Your task to perform on an android device: clear history in the chrome app Image 0: 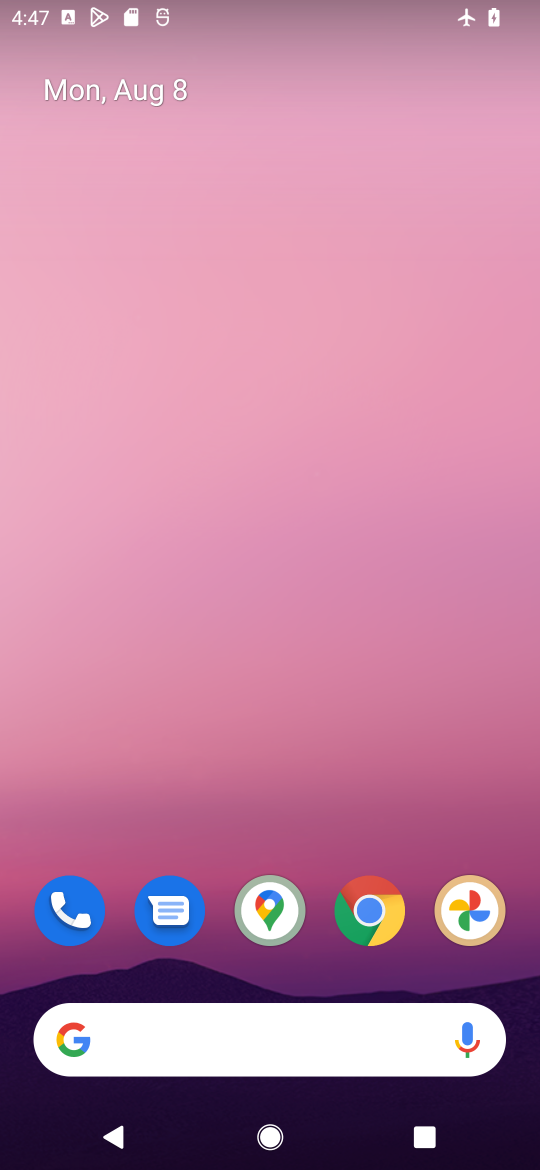
Step 0: click (372, 917)
Your task to perform on an android device: clear history in the chrome app Image 1: 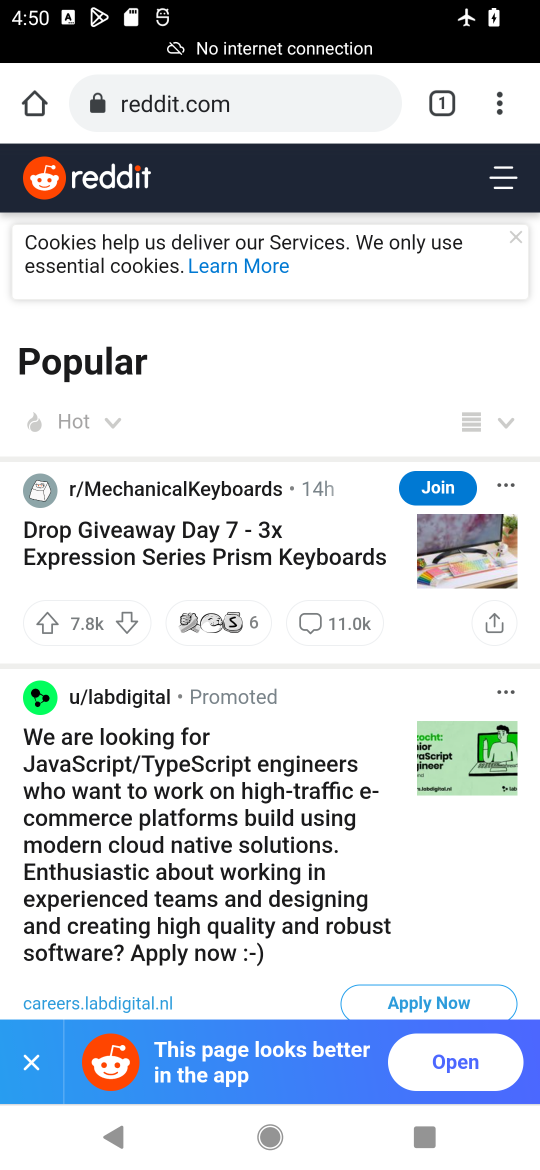
Step 1: click (499, 99)
Your task to perform on an android device: clear history in the chrome app Image 2: 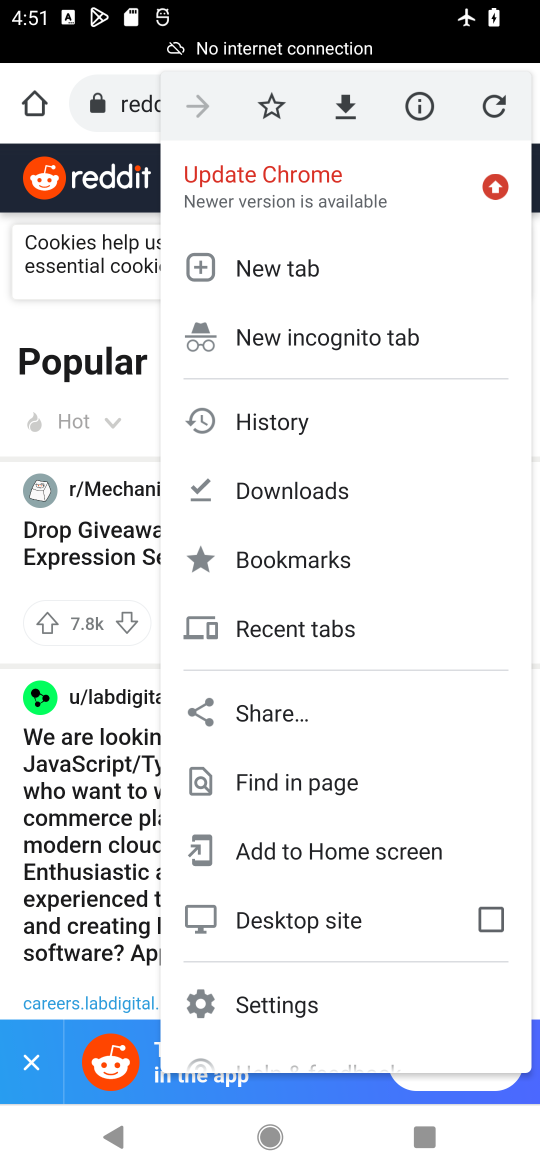
Step 2: click (250, 416)
Your task to perform on an android device: clear history in the chrome app Image 3: 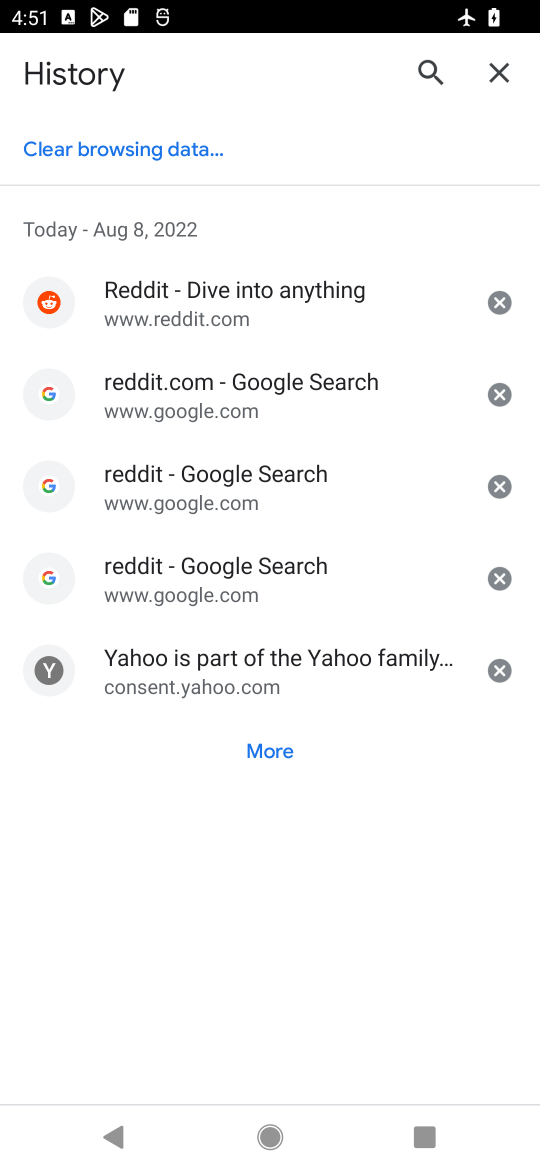
Step 3: click (111, 153)
Your task to perform on an android device: clear history in the chrome app Image 4: 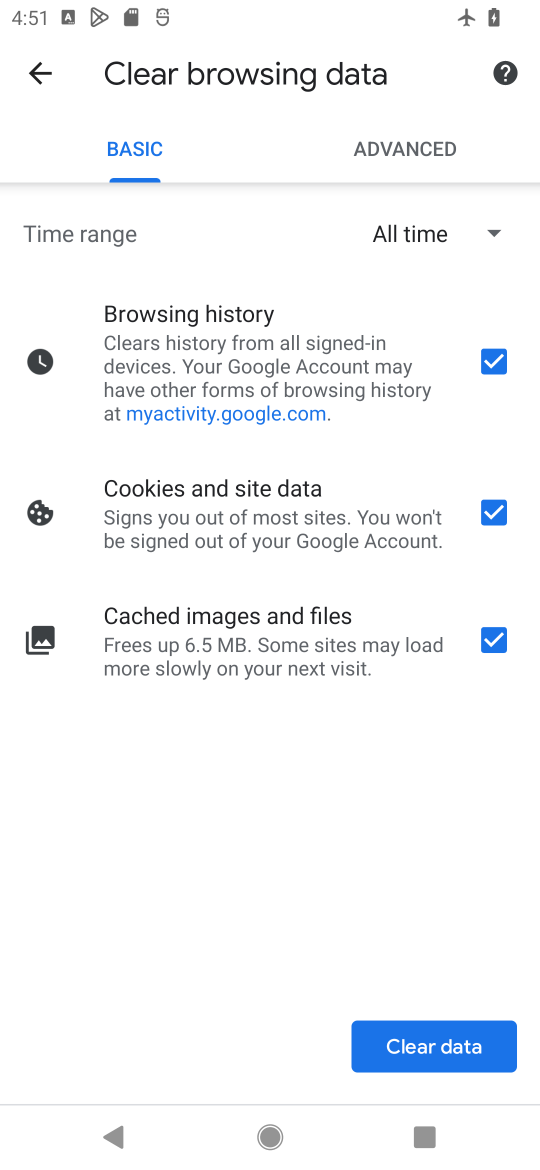
Step 4: click (455, 1042)
Your task to perform on an android device: clear history in the chrome app Image 5: 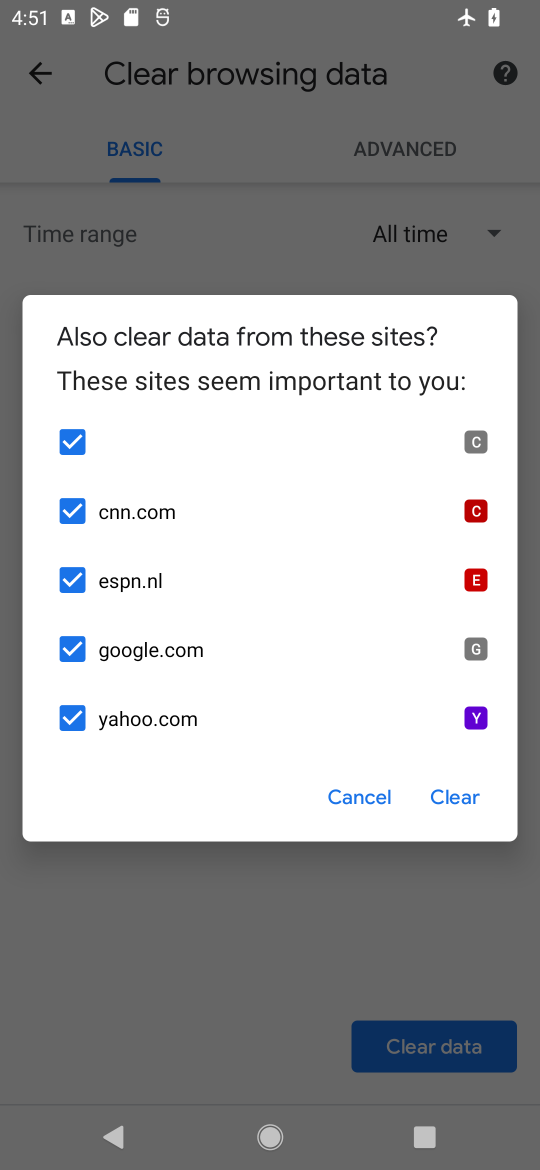
Step 5: click (443, 799)
Your task to perform on an android device: clear history in the chrome app Image 6: 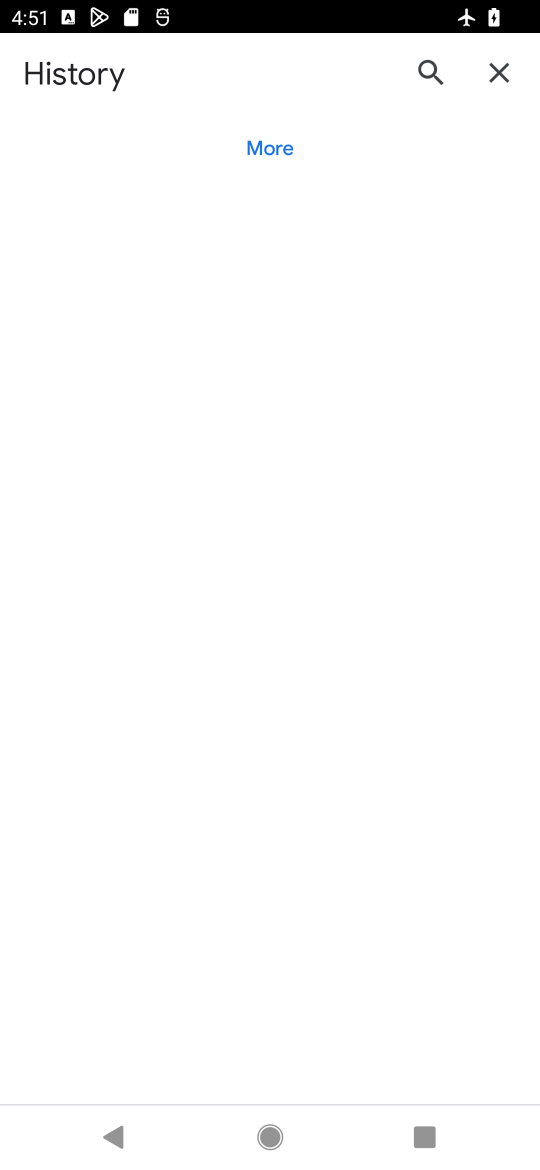
Step 6: task complete